Your task to perform on an android device: delete browsing data in the chrome app Image 0: 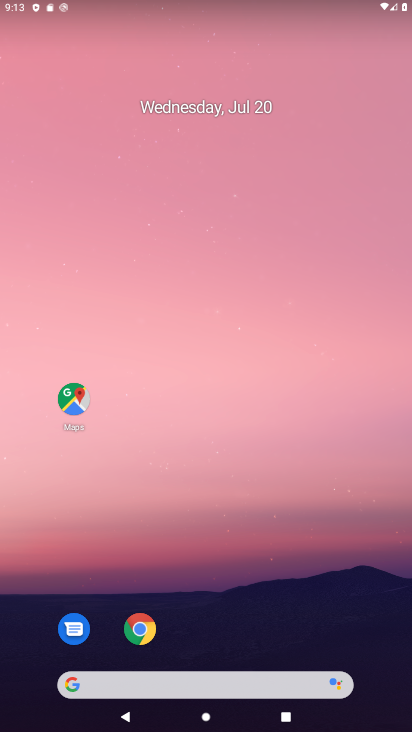
Step 0: drag from (243, 567) to (122, 4)
Your task to perform on an android device: delete browsing data in the chrome app Image 1: 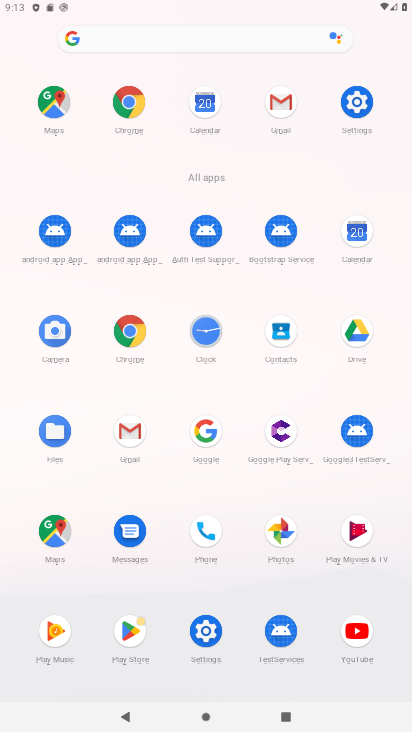
Step 1: click (115, 105)
Your task to perform on an android device: delete browsing data in the chrome app Image 2: 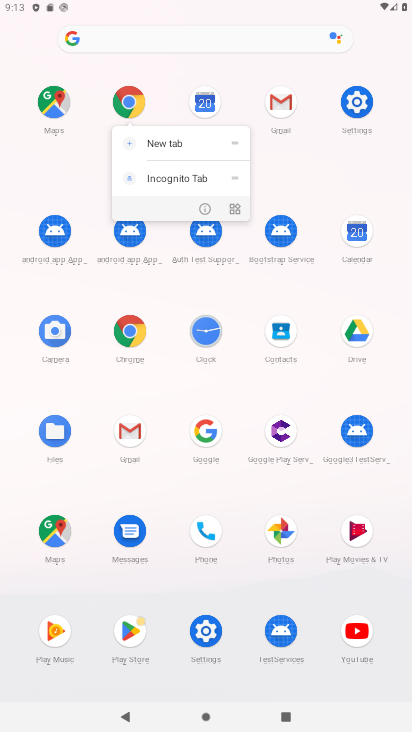
Step 2: click (130, 88)
Your task to perform on an android device: delete browsing data in the chrome app Image 3: 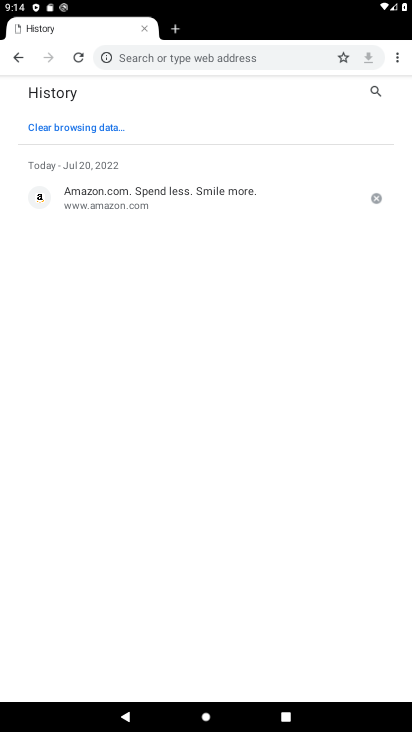
Step 3: click (105, 134)
Your task to perform on an android device: delete browsing data in the chrome app Image 4: 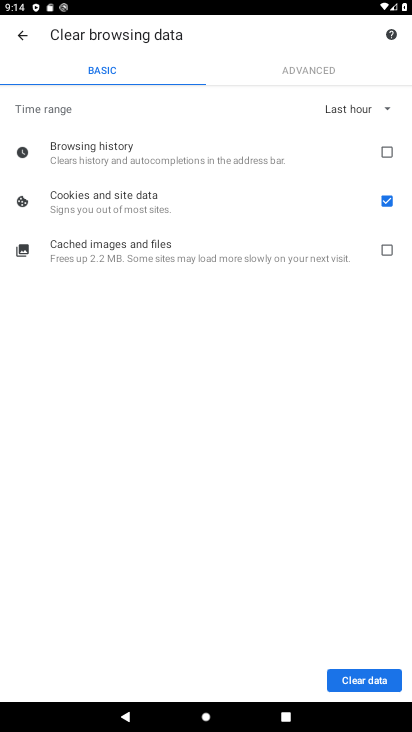
Step 4: click (389, 148)
Your task to perform on an android device: delete browsing data in the chrome app Image 5: 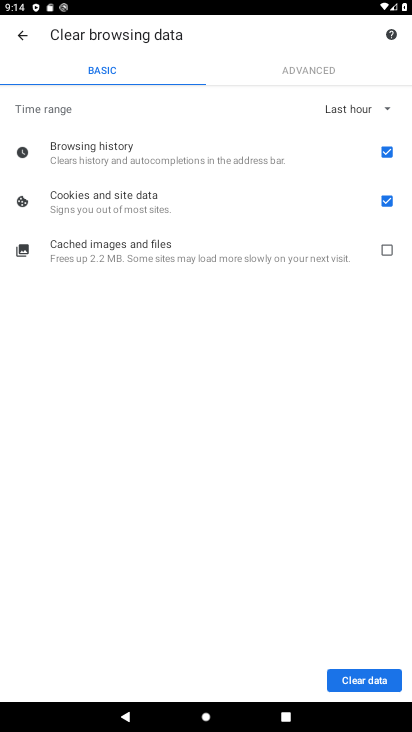
Step 5: click (392, 203)
Your task to perform on an android device: delete browsing data in the chrome app Image 6: 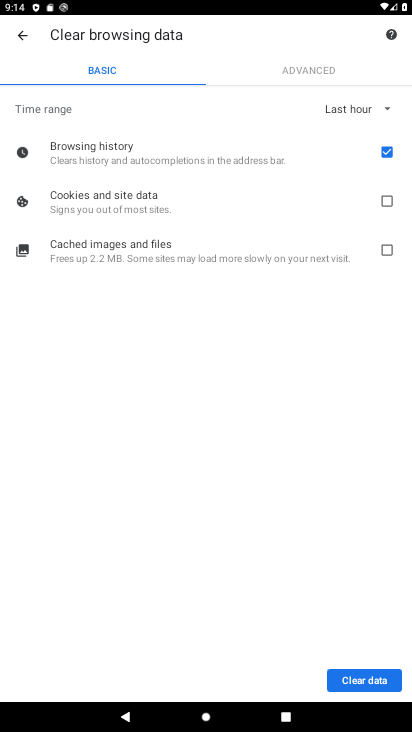
Step 6: task complete